Your task to perform on an android device: Turn off the flashlight Image 0: 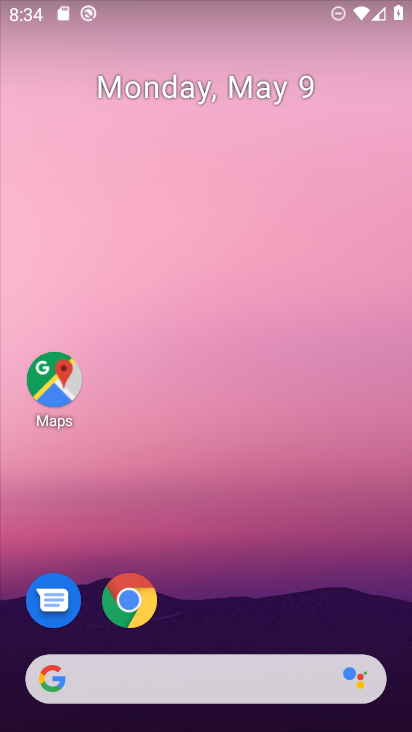
Step 0: drag from (249, 586) to (158, 28)
Your task to perform on an android device: Turn off the flashlight Image 1: 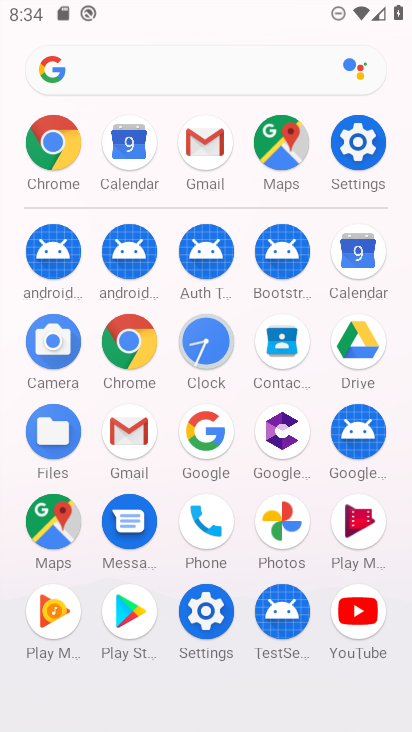
Step 1: click (200, 612)
Your task to perform on an android device: Turn off the flashlight Image 2: 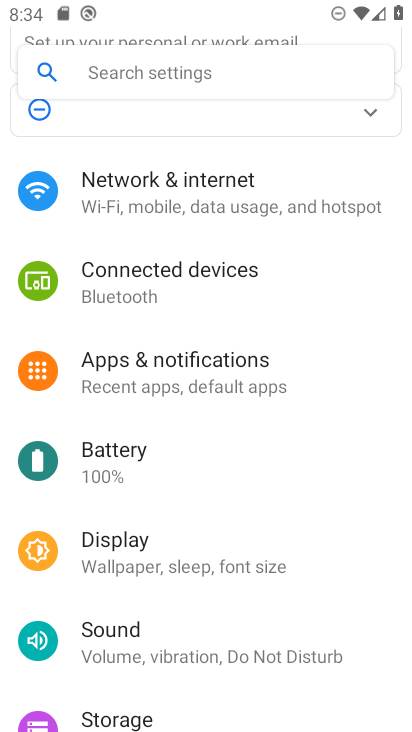
Step 2: click (228, 175)
Your task to perform on an android device: Turn off the flashlight Image 3: 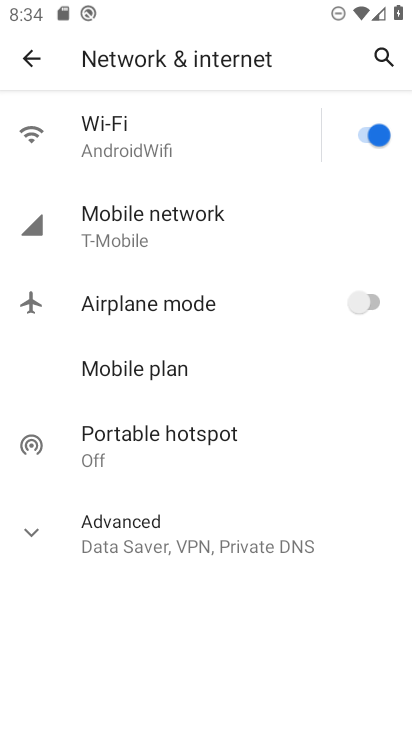
Step 3: click (63, 525)
Your task to perform on an android device: Turn off the flashlight Image 4: 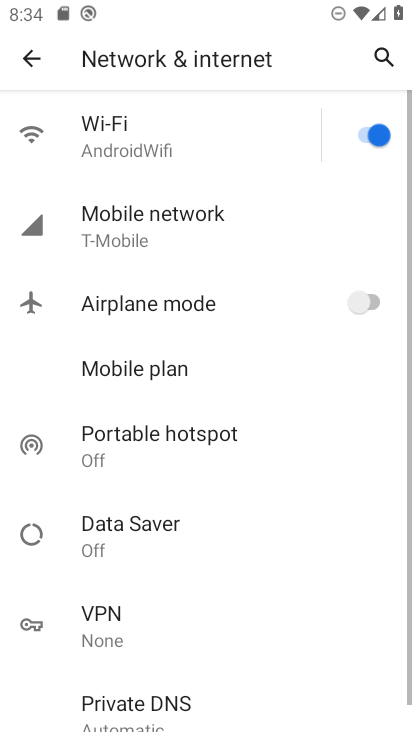
Step 4: task complete